Your task to perform on an android device: delete browsing data in the chrome app Image 0: 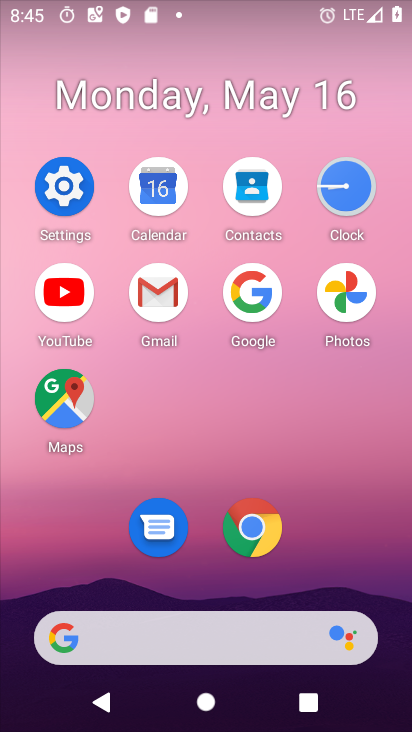
Step 0: click (256, 507)
Your task to perform on an android device: delete browsing data in the chrome app Image 1: 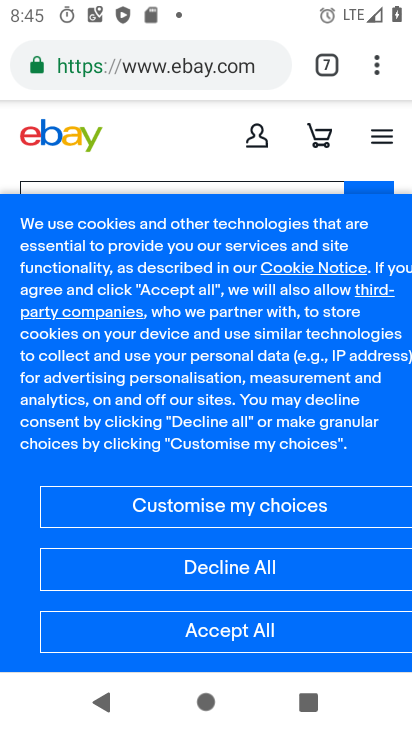
Step 1: click (377, 71)
Your task to perform on an android device: delete browsing data in the chrome app Image 2: 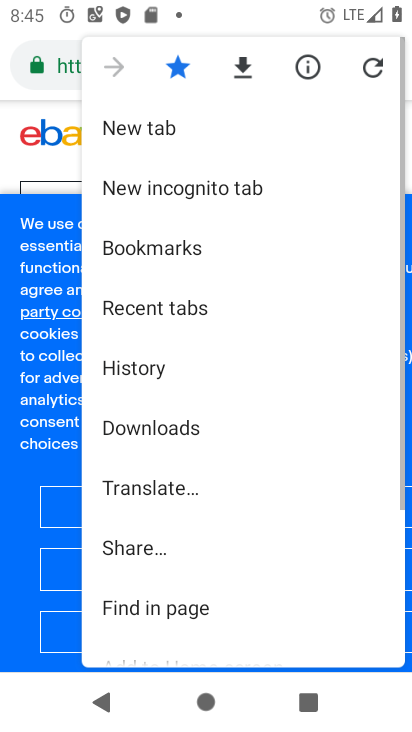
Step 2: drag from (260, 510) to (279, 99)
Your task to perform on an android device: delete browsing data in the chrome app Image 3: 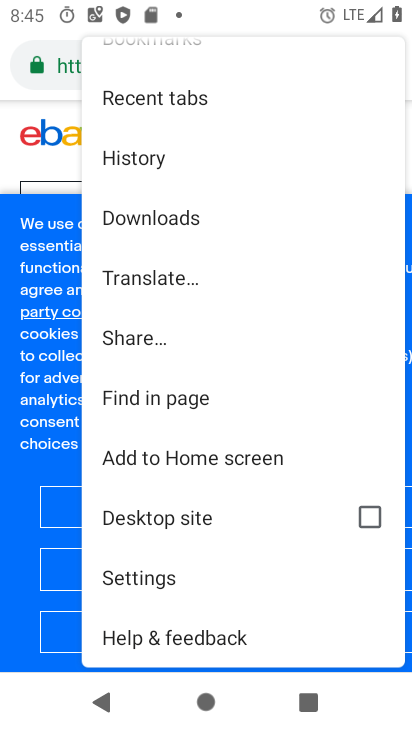
Step 3: click (177, 589)
Your task to perform on an android device: delete browsing data in the chrome app Image 4: 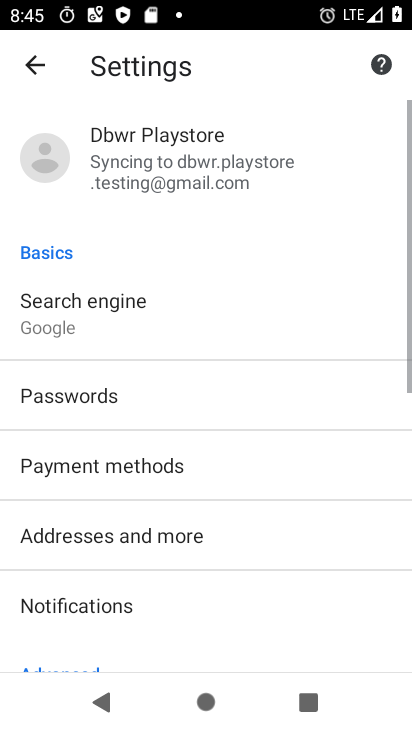
Step 4: drag from (175, 588) to (179, 123)
Your task to perform on an android device: delete browsing data in the chrome app Image 5: 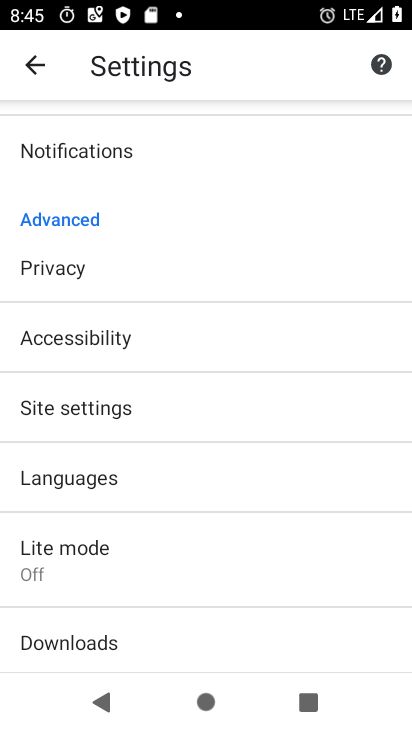
Step 5: click (181, 281)
Your task to perform on an android device: delete browsing data in the chrome app Image 6: 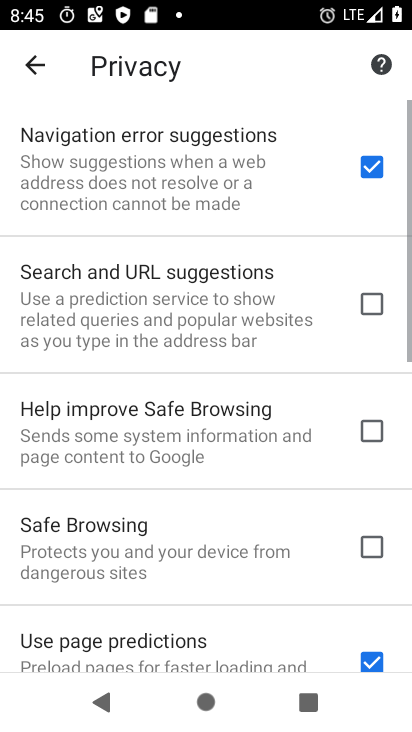
Step 6: click (214, 188)
Your task to perform on an android device: delete browsing data in the chrome app Image 7: 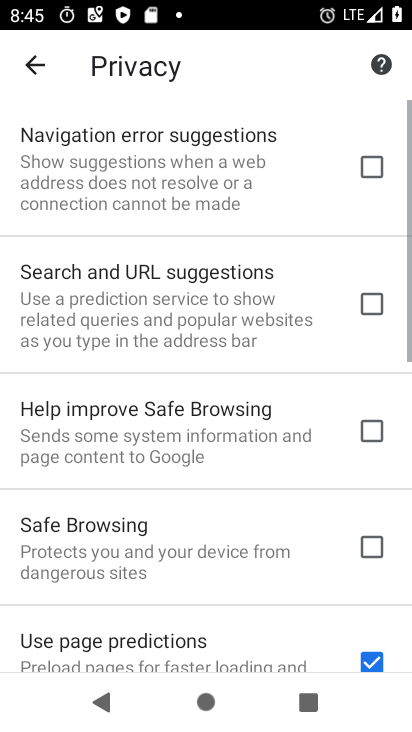
Step 7: drag from (231, 604) to (237, 145)
Your task to perform on an android device: delete browsing data in the chrome app Image 8: 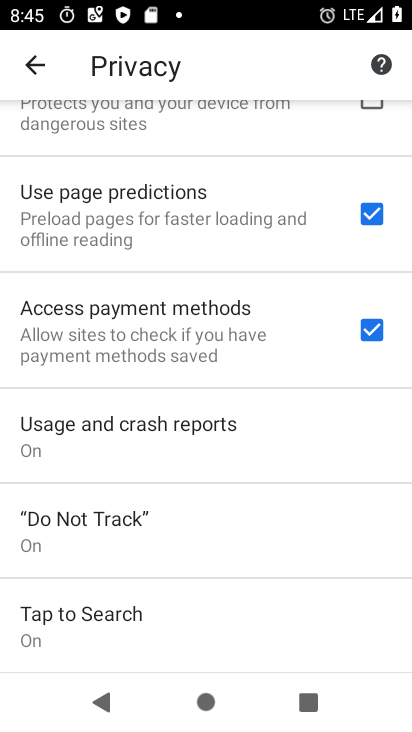
Step 8: drag from (236, 606) to (255, 155)
Your task to perform on an android device: delete browsing data in the chrome app Image 9: 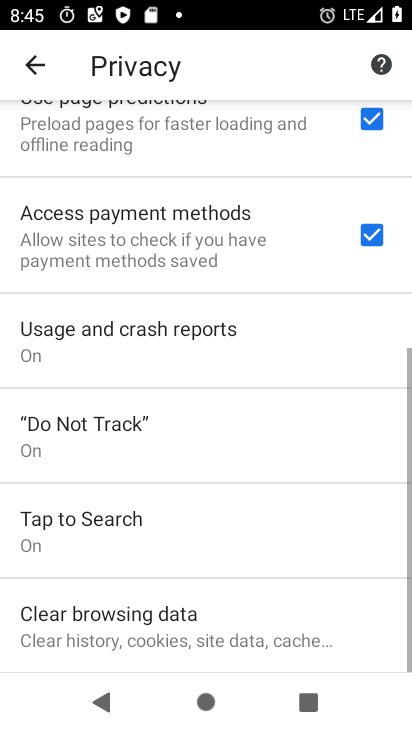
Step 9: click (221, 619)
Your task to perform on an android device: delete browsing data in the chrome app Image 10: 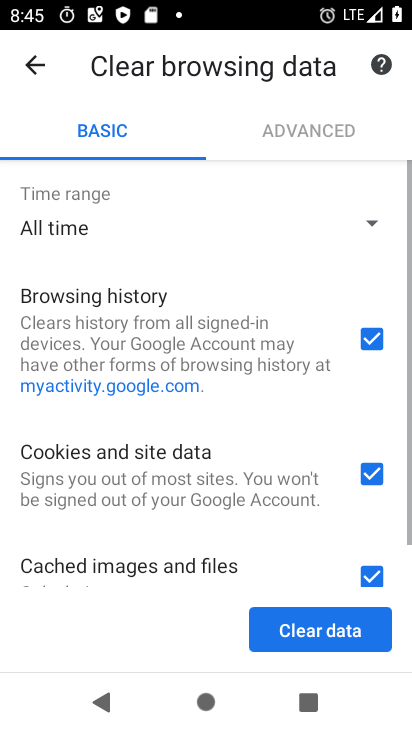
Step 10: drag from (213, 599) to (208, 208)
Your task to perform on an android device: delete browsing data in the chrome app Image 11: 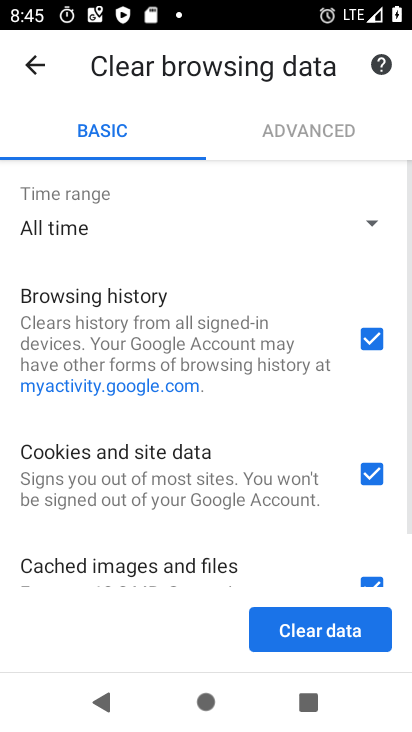
Step 11: drag from (237, 540) to (210, 233)
Your task to perform on an android device: delete browsing data in the chrome app Image 12: 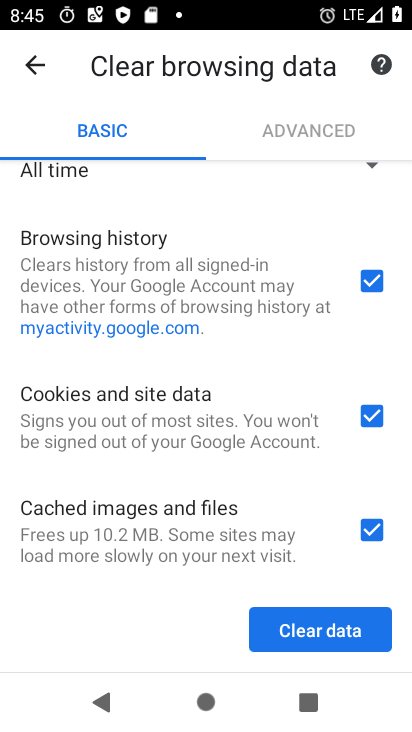
Step 12: click (321, 623)
Your task to perform on an android device: delete browsing data in the chrome app Image 13: 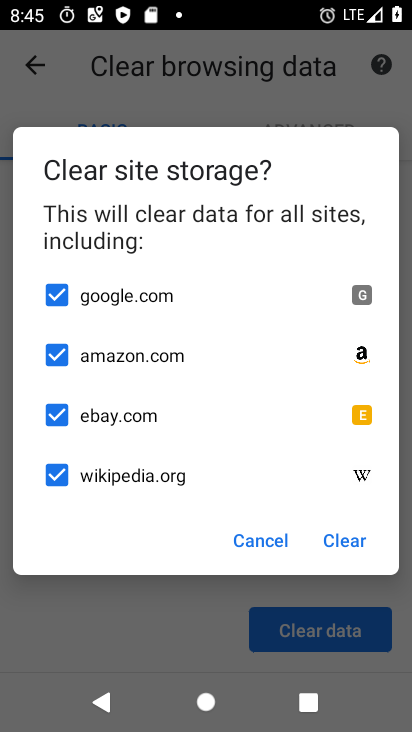
Step 13: click (346, 540)
Your task to perform on an android device: delete browsing data in the chrome app Image 14: 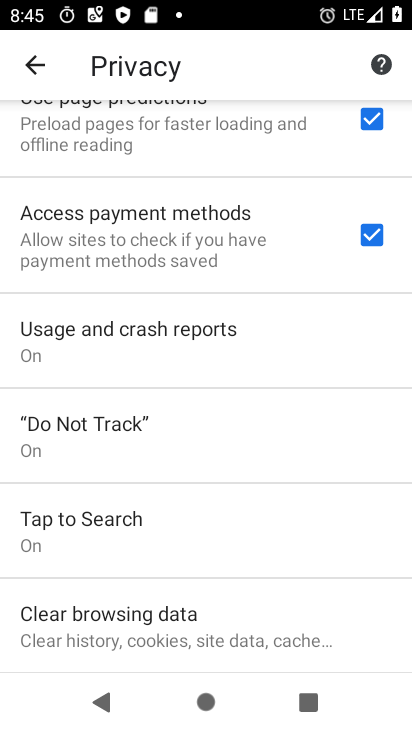
Step 14: task complete